Your task to perform on an android device: turn off airplane mode Image 0: 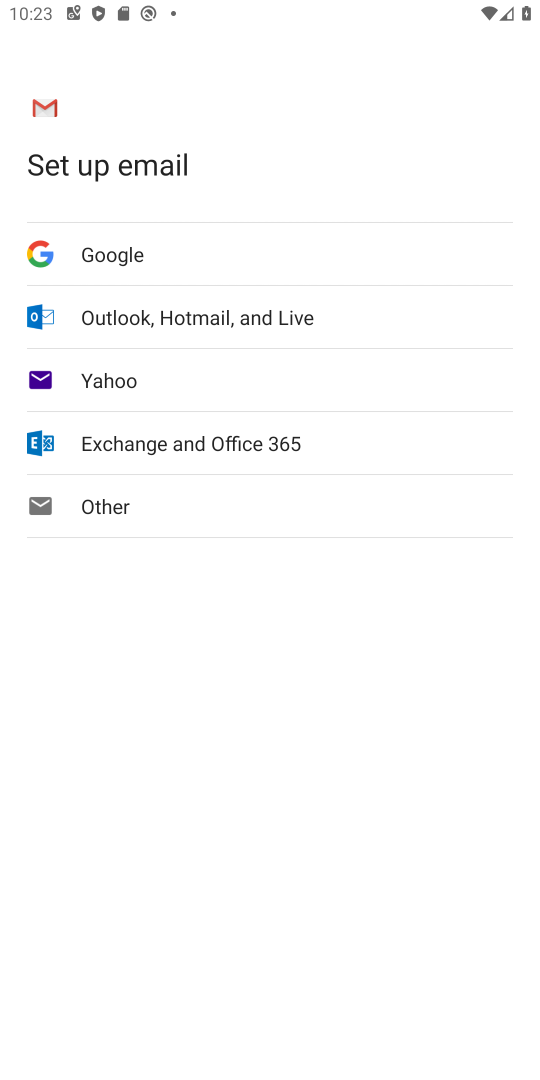
Step 0: drag from (227, 19) to (270, 619)
Your task to perform on an android device: turn off airplane mode Image 1: 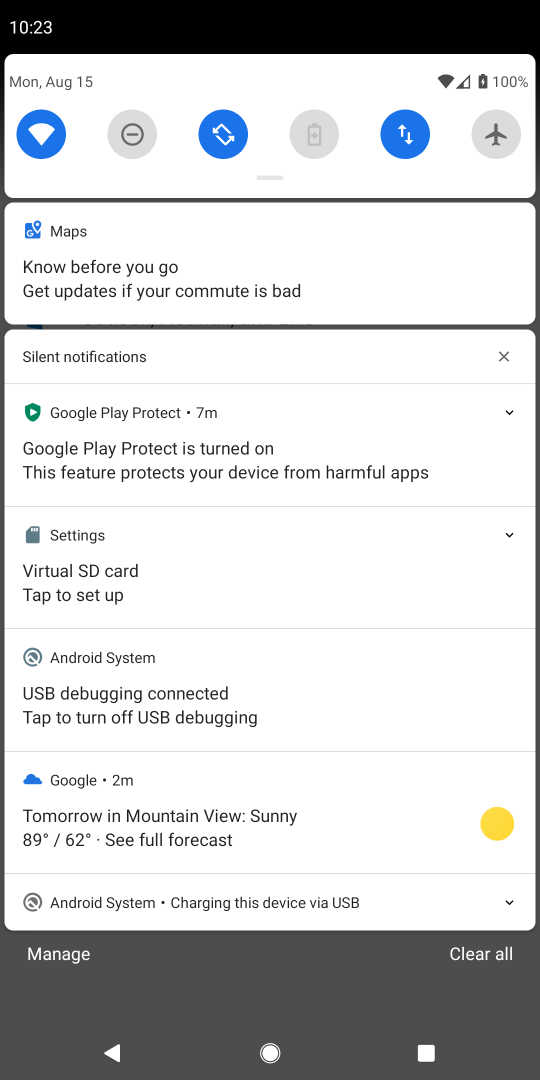
Step 1: task complete